Your task to perform on an android device: Turn on the flashlight Image 0: 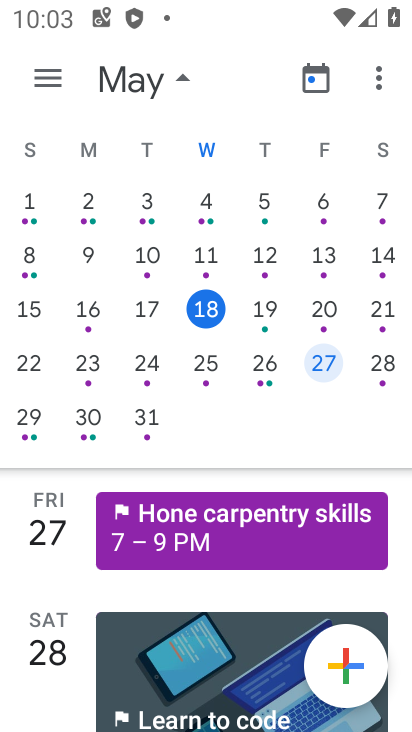
Step 0: press home button
Your task to perform on an android device: Turn on the flashlight Image 1: 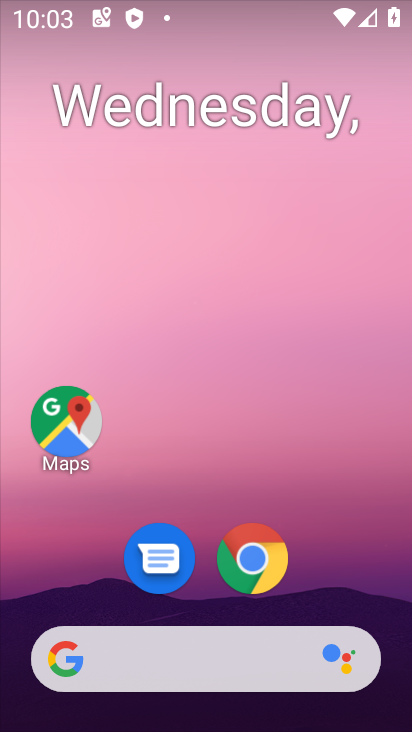
Step 1: drag from (124, 422) to (247, 238)
Your task to perform on an android device: Turn on the flashlight Image 2: 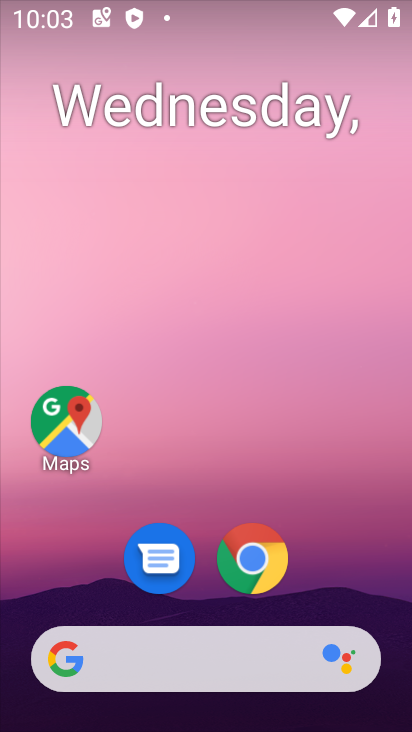
Step 2: drag from (33, 520) to (314, 172)
Your task to perform on an android device: Turn on the flashlight Image 3: 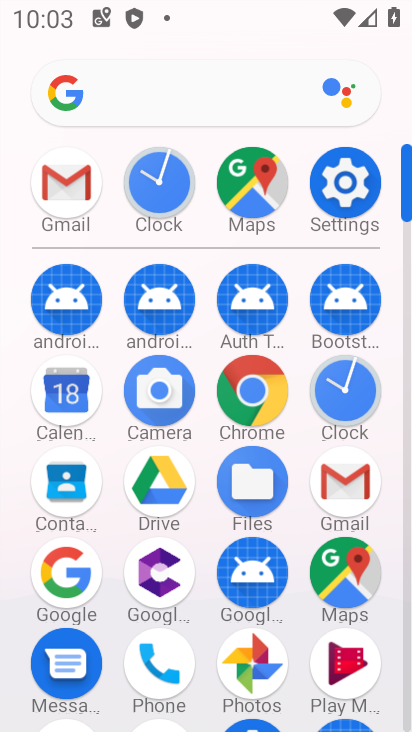
Step 3: click (335, 181)
Your task to perform on an android device: Turn on the flashlight Image 4: 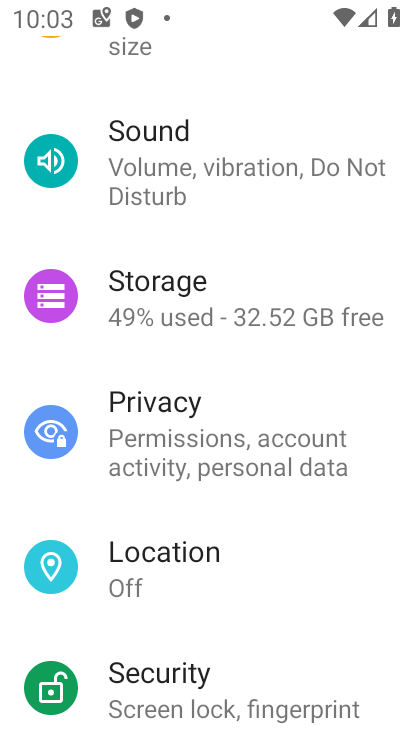
Step 4: task complete